Your task to perform on an android device: turn off picture-in-picture Image 0: 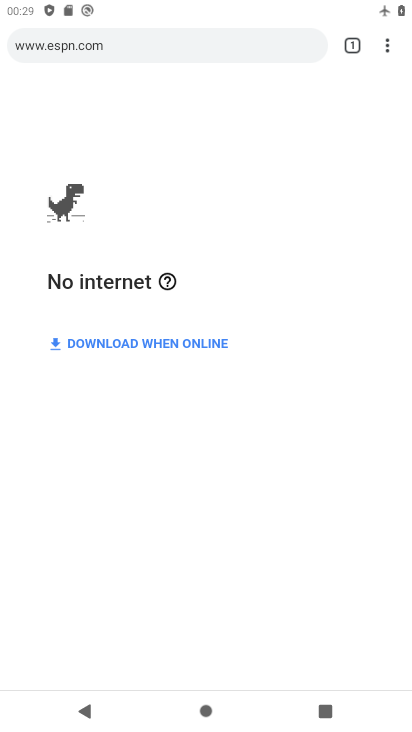
Step 0: press home button
Your task to perform on an android device: turn off picture-in-picture Image 1: 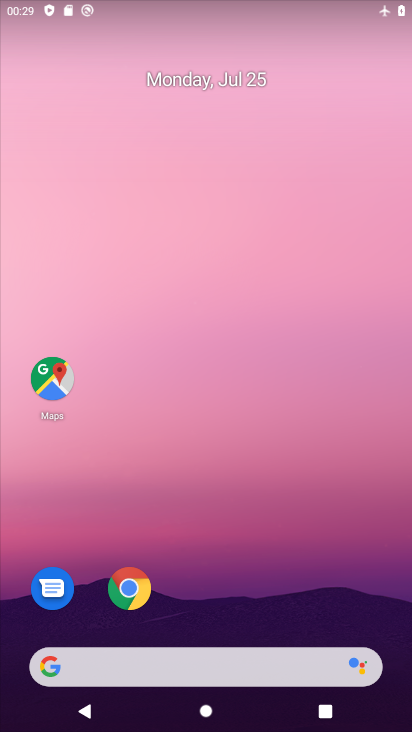
Step 1: click (137, 593)
Your task to perform on an android device: turn off picture-in-picture Image 2: 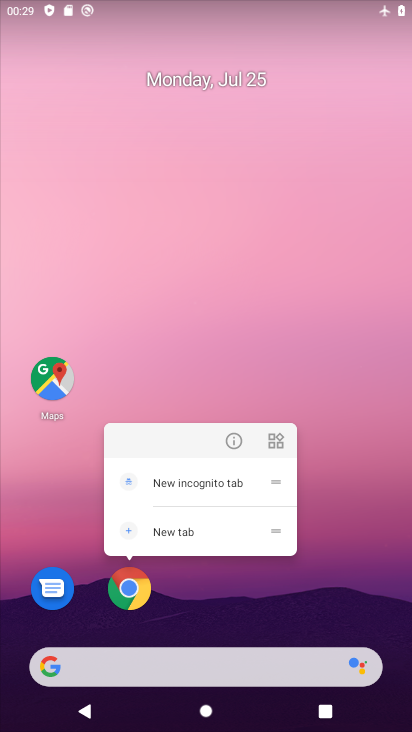
Step 2: click (234, 443)
Your task to perform on an android device: turn off picture-in-picture Image 3: 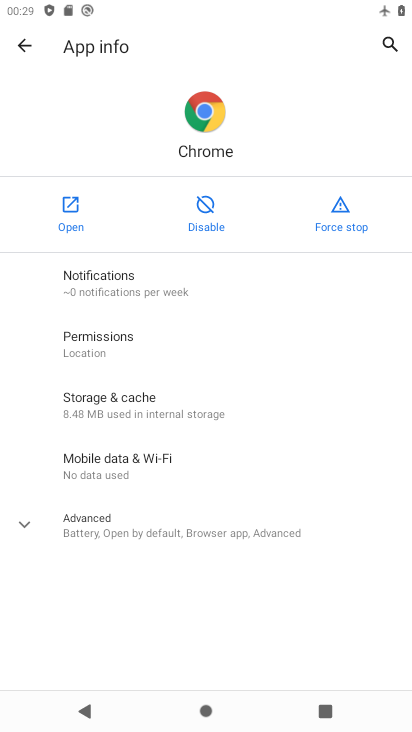
Step 3: click (114, 535)
Your task to perform on an android device: turn off picture-in-picture Image 4: 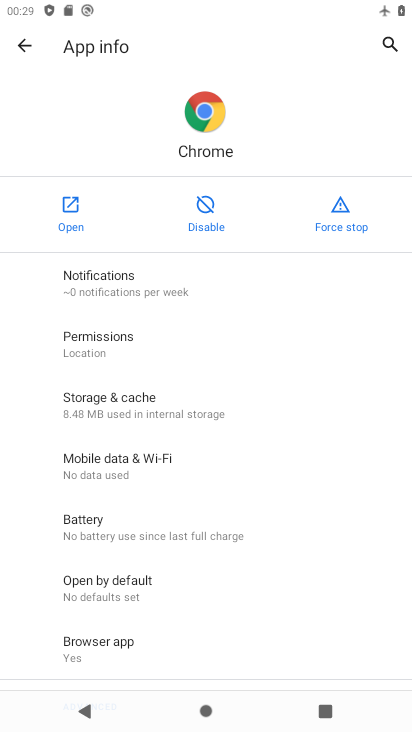
Step 4: drag from (132, 623) to (163, 456)
Your task to perform on an android device: turn off picture-in-picture Image 5: 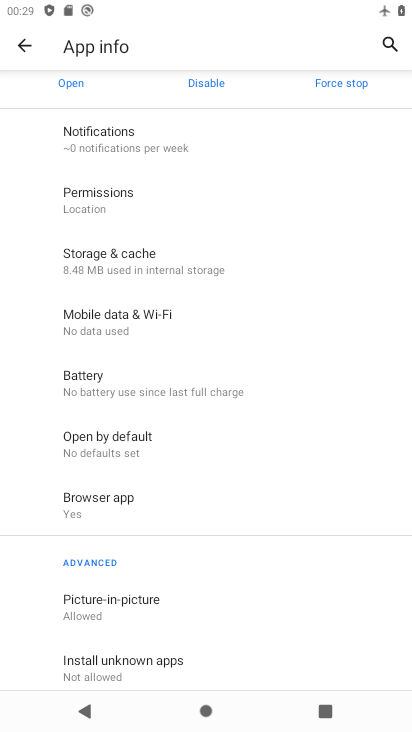
Step 5: click (140, 600)
Your task to perform on an android device: turn off picture-in-picture Image 6: 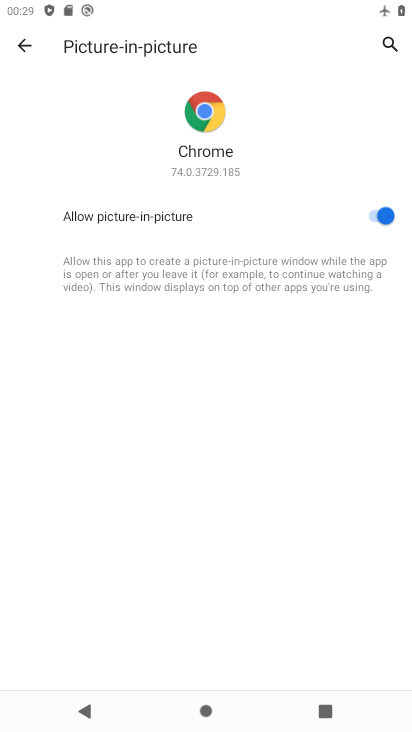
Step 6: click (358, 213)
Your task to perform on an android device: turn off picture-in-picture Image 7: 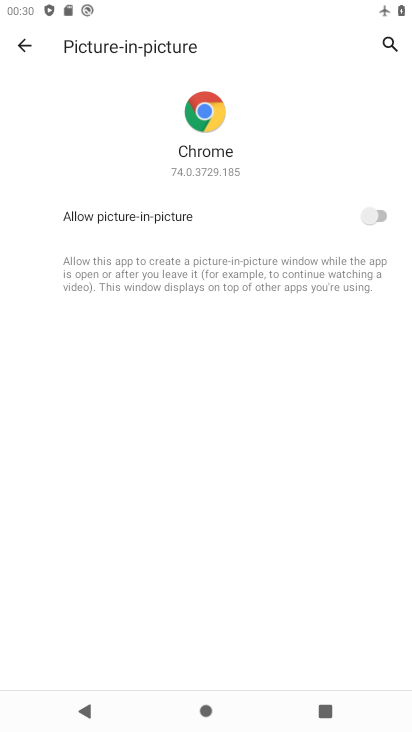
Step 7: task complete